Your task to perform on an android device: open app "ColorNote Notepad Notes" (install if not already installed) and go to login screen Image 0: 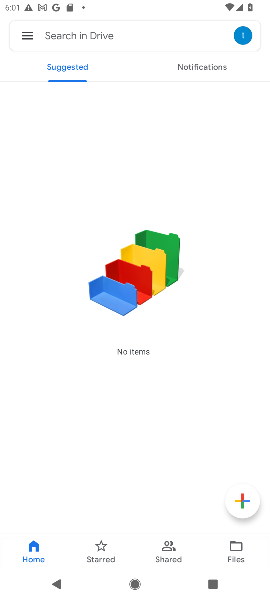
Step 0: press home button
Your task to perform on an android device: open app "ColorNote Notepad Notes" (install if not already installed) and go to login screen Image 1: 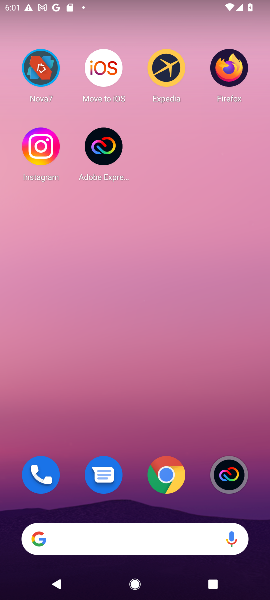
Step 1: drag from (92, 526) to (154, 257)
Your task to perform on an android device: open app "ColorNote Notepad Notes" (install if not already installed) and go to login screen Image 2: 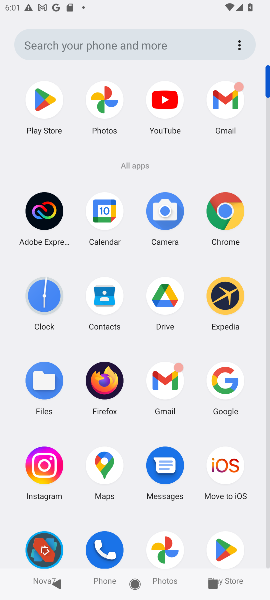
Step 2: click (219, 555)
Your task to perform on an android device: open app "ColorNote Notepad Notes" (install if not already installed) and go to login screen Image 3: 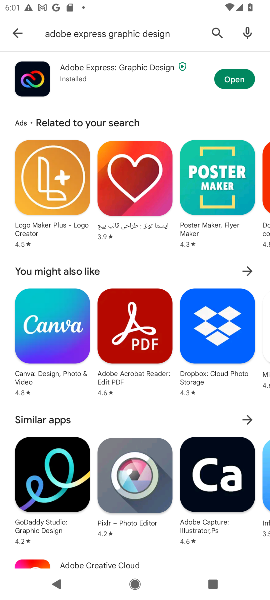
Step 3: click (214, 30)
Your task to perform on an android device: open app "ColorNote Notepad Notes" (install if not already installed) and go to login screen Image 4: 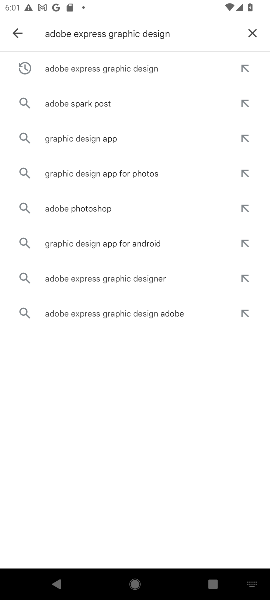
Step 4: click (247, 30)
Your task to perform on an android device: open app "ColorNote Notepad Notes" (install if not already installed) and go to login screen Image 5: 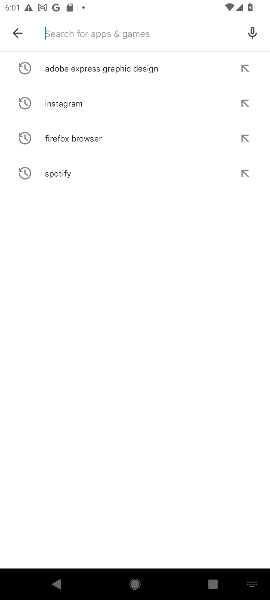
Step 5: type "ColorNote Notepad Notes"
Your task to perform on an android device: open app "ColorNote Notepad Notes" (install if not already installed) and go to login screen Image 6: 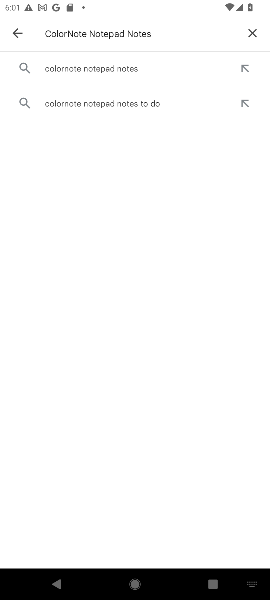
Step 6: click (67, 69)
Your task to perform on an android device: open app "ColorNote Notepad Notes" (install if not already installed) and go to login screen Image 7: 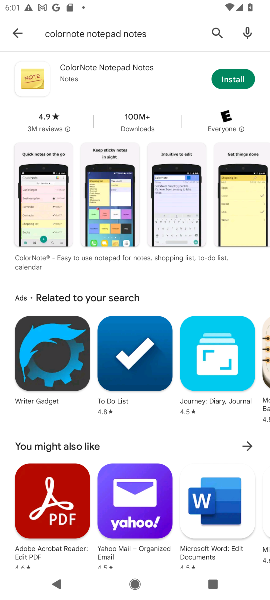
Step 7: click (224, 79)
Your task to perform on an android device: open app "ColorNote Notepad Notes" (install if not already installed) and go to login screen Image 8: 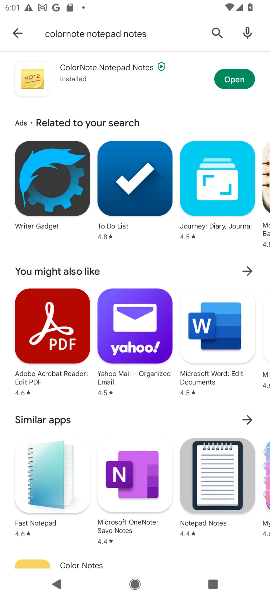
Step 8: click (227, 80)
Your task to perform on an android device: open app "ColorNote Notepad Notes" (install if not already installed) and go to login screen Image 9: 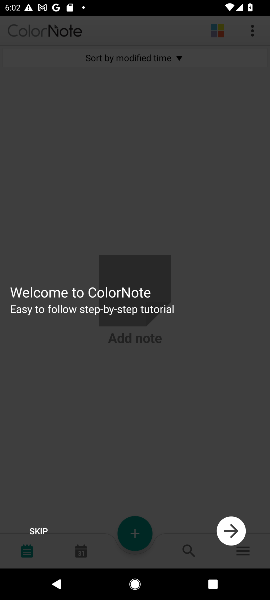
Step 9: task complete